Your task to perform on an android device: turn off airplane mode Image 0: 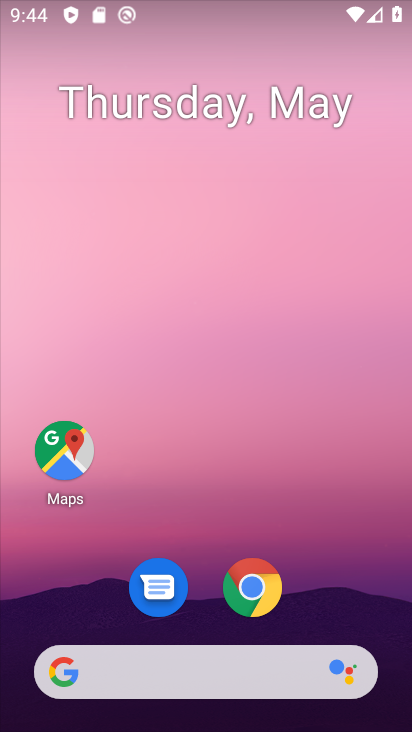
Step 0: drag from (316, 610) to (324, 96)
Your task to perform on an android device: turn off airplane mode Image 1: 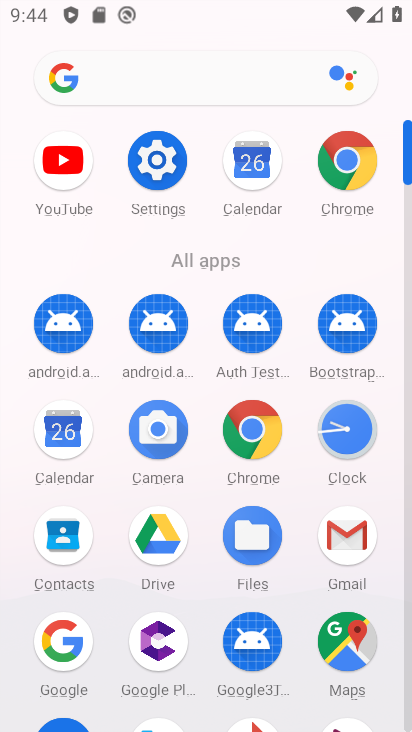
Step 1: click (210, 98)
Your task to perform on an android device: turn off airplane mode Image 2: 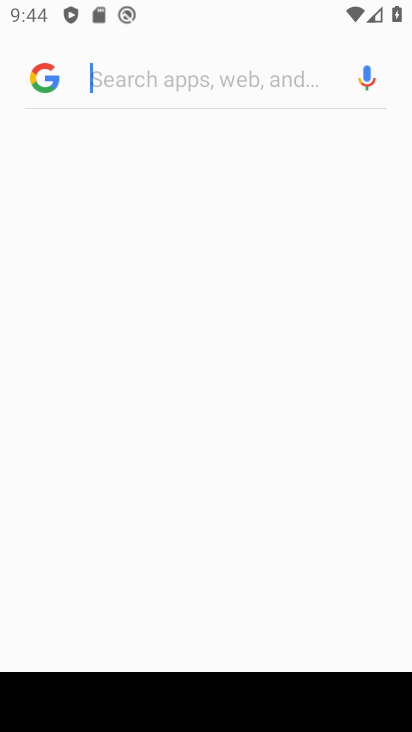
Step 2: click (169, 146)
Your task to perform on an android device: turn off airplane mode Image 3: 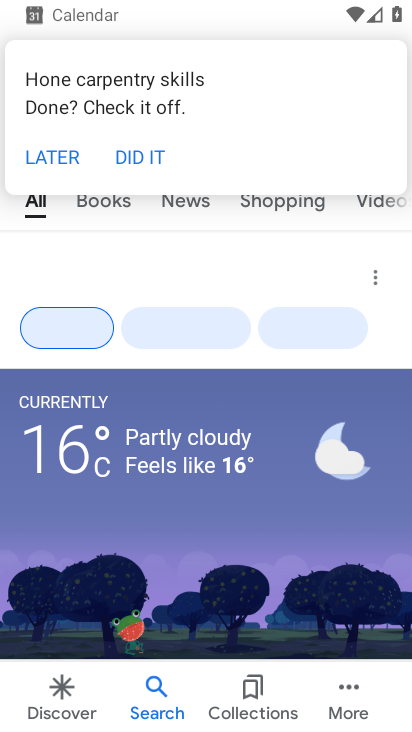
Step 3: press home button
Your task to perform on an android device: turn off airplane mode Image 4: 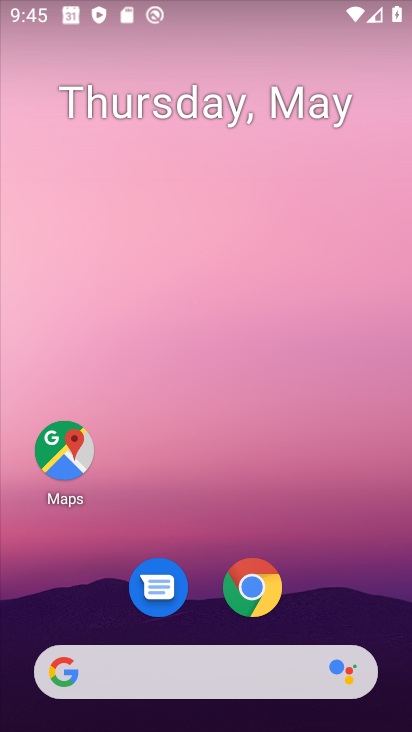
Step 4: drag from (307, 541) to (310, 208)
Your task to perform on an android device: turn off airplane mode Image 5: 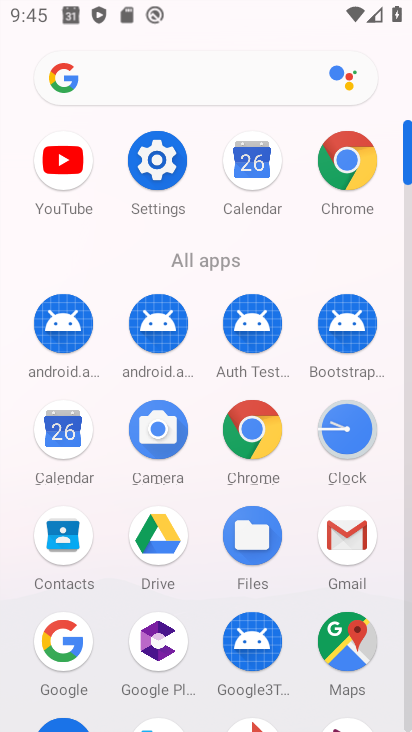
Step 5: click (154, 150)
Your task to perform on an android device: turn off airplane mode Image 6: 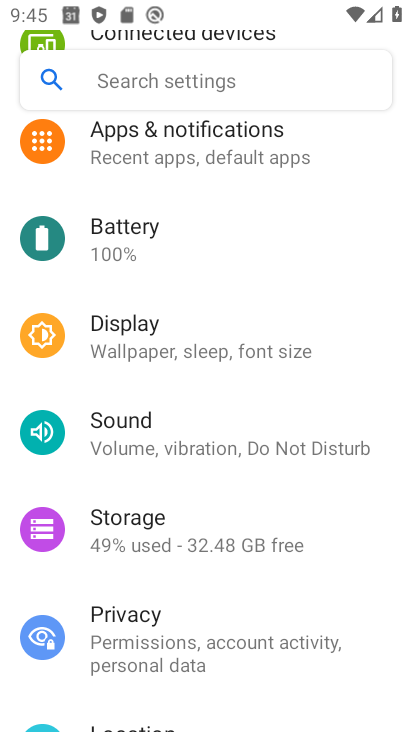
Step 6: drag from (156, 115) to (163, 386)
Your task to perform on an android device: turn off airplane mode Image 7: 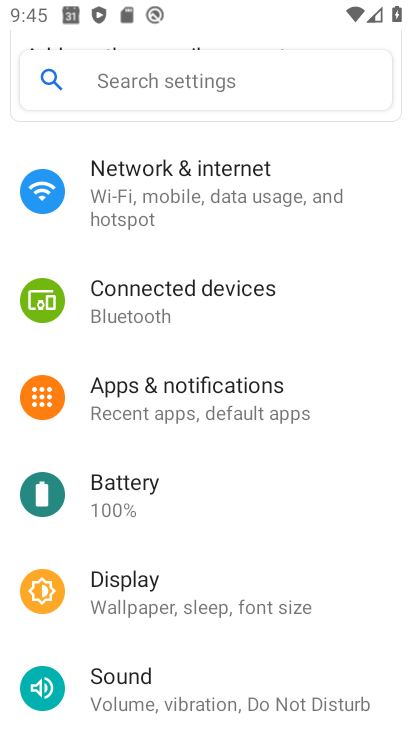
Step 7: click (233, 163)
Your task to perform on an android device: turn off airplane mode Image 8: 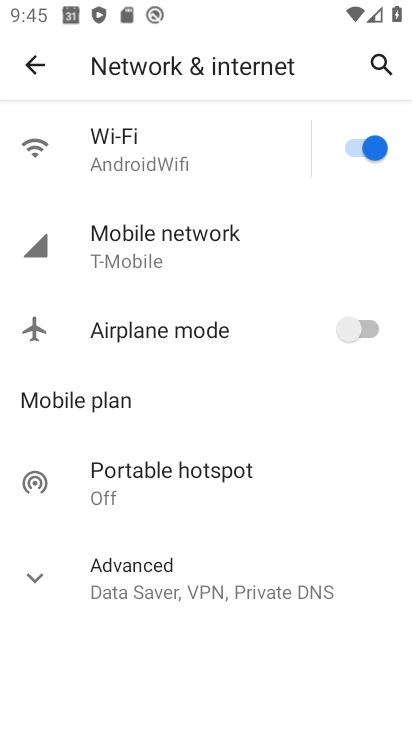
Step 8: task complete